Your task to perform on an android device: Open the map Image 0: 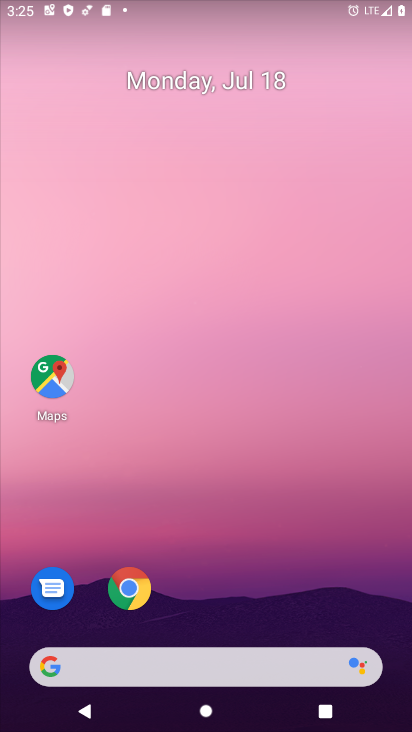
Step 0: click (52, 379)
Your task to perform on an android device: Open the map Image 1: 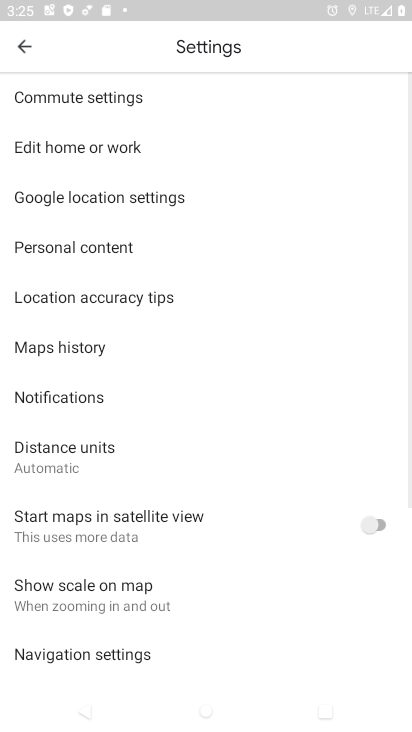
Step 1: click (26, 41)
Your task to perform on an android device: Open the map Image 2: 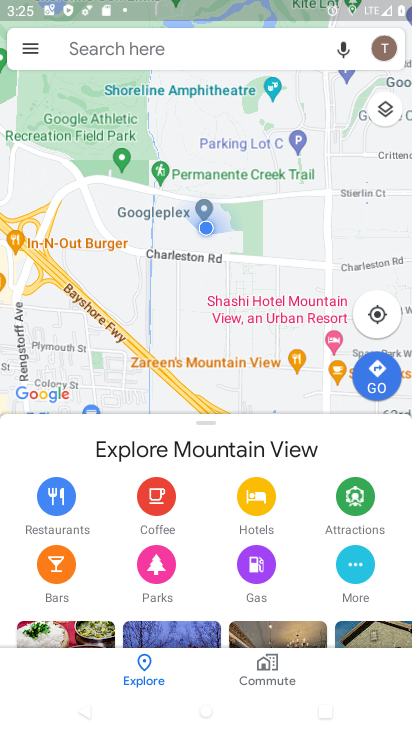
Step 2: task complete